Your task to perform on an android device: Go to Maps Image 0: 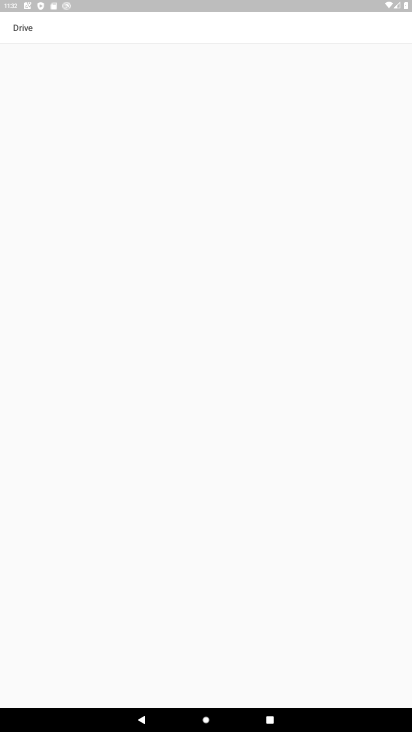
Step 0: press home button
Your task to perform on an android device: Go to Maps Image 1: 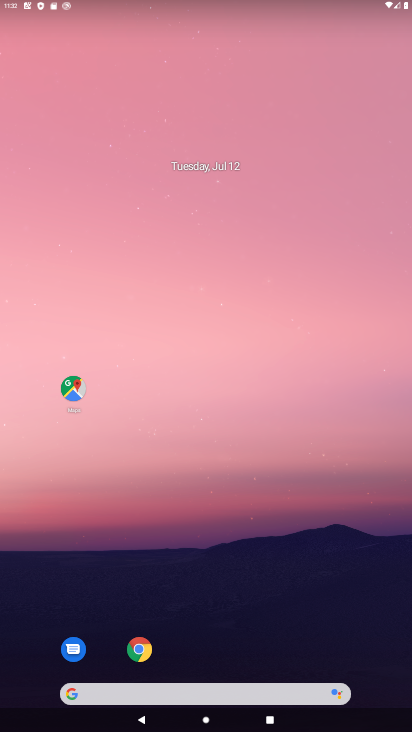
Step 1: drag from (282, 644) to (354, 0)
Your task to perform on an android device: Go to Maps Image 2: 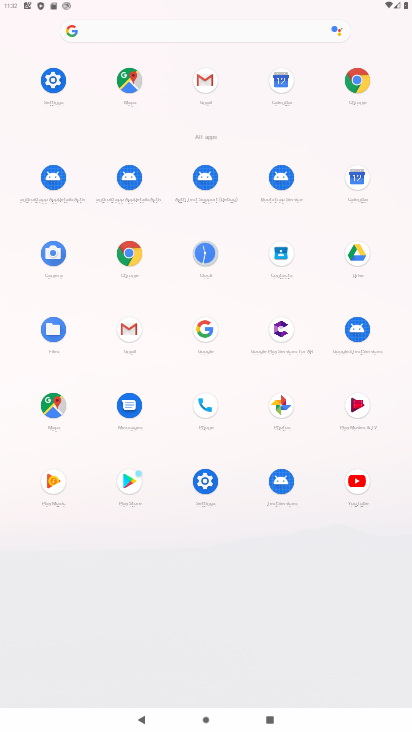
Step 2: click (46, 398)
Your task to perform on an android device: Go to Maps Image 3: 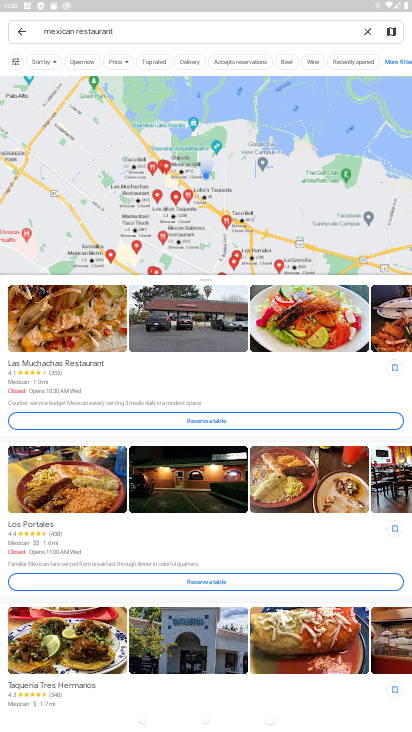
Step 3: task complete